Your task to perform on an android device: Go to Yahoo.com Image 0: 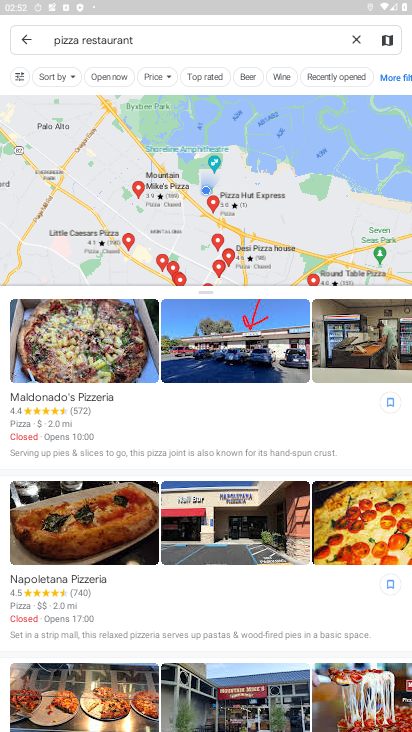
Step 0: press home button
Your task to perform on an android device: Go to Yahoo.com Image 1: 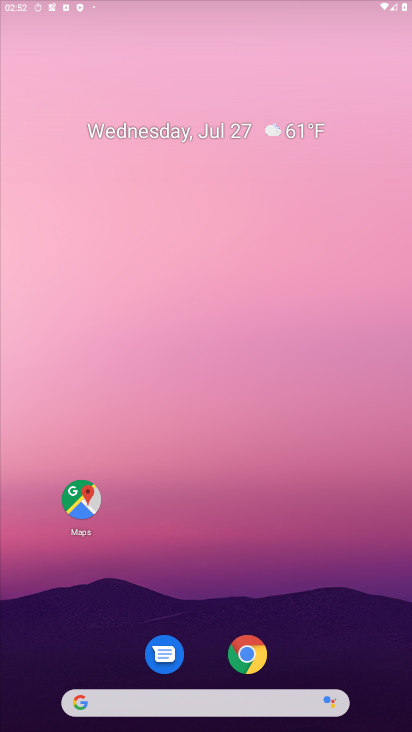
Step 1: drag from (150, 703) to (184, 6)
Your task to perform on an android device: Go to Yahoo.com Image 2: 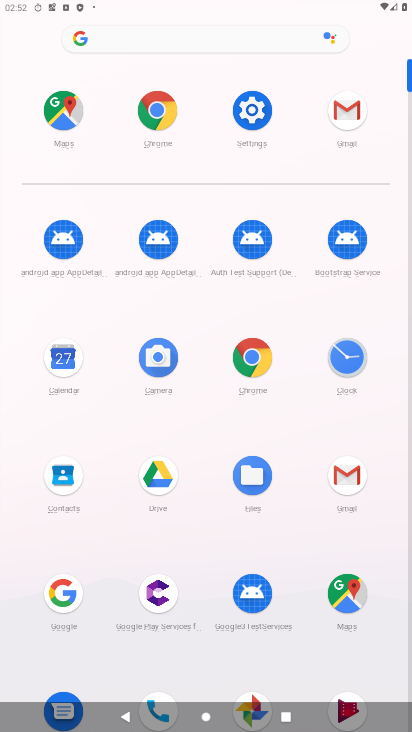
Step 2: click (235, 344)
Your task to perform on an android device: Go to Yahoo.com Image 3: 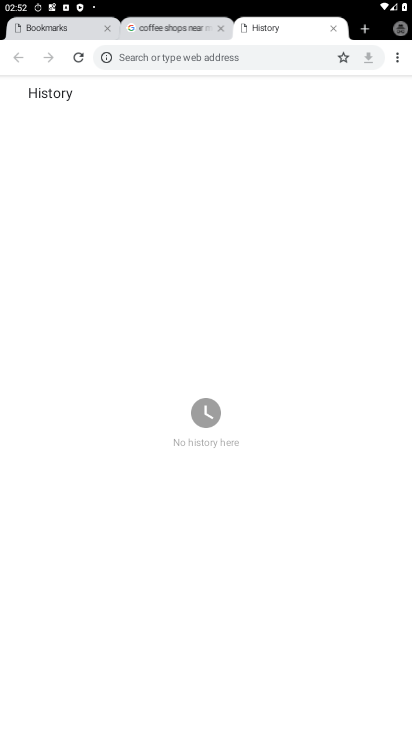
Step 3: click (164, 65)
Your task to perform on an android device: Go to Yahoo.com Image 4: 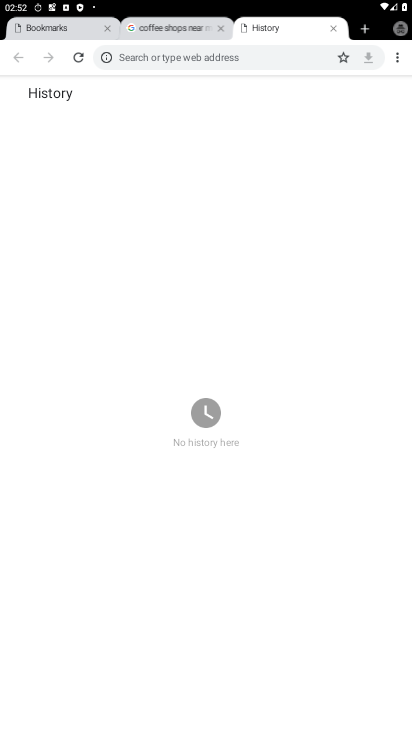
Step 4: click (164, 65)
Your task to perform on an android device: Go to Yahoo.com Image 5: 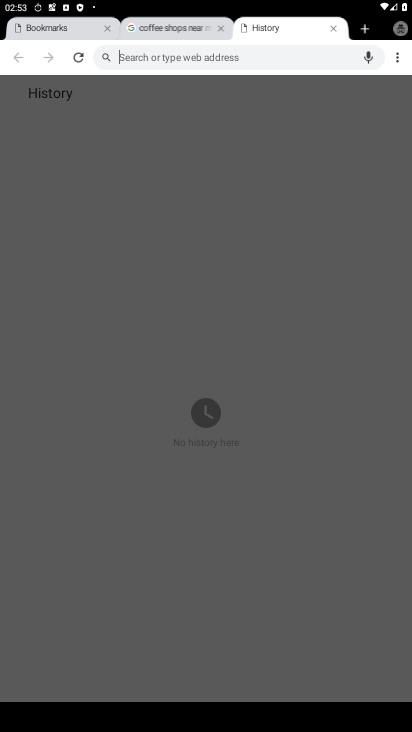
Step 5: type "yahoo.com"
Your task to perform on an android device: Go to Yahoo.com Image 6: 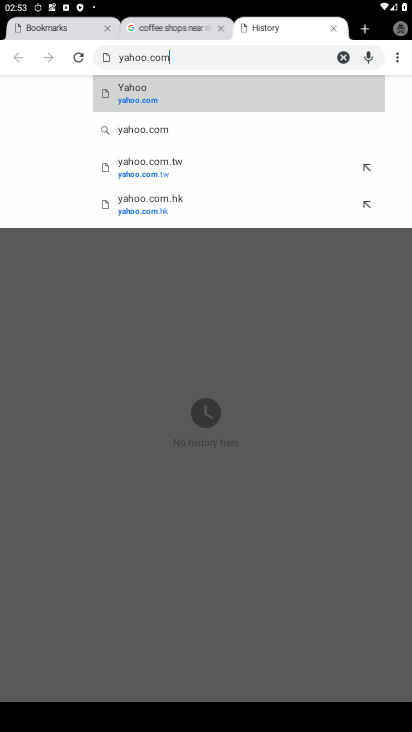
Step 6: click (273, 81)
Your task to perform on an android device: Go to Yahoo.com Image 7: 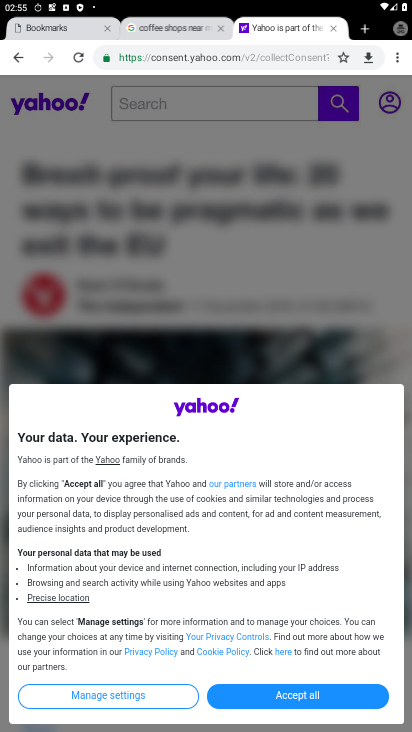
Step 7: task complete